Your task to perform on an android device: turn on the 12-hour format for clock Image 0: 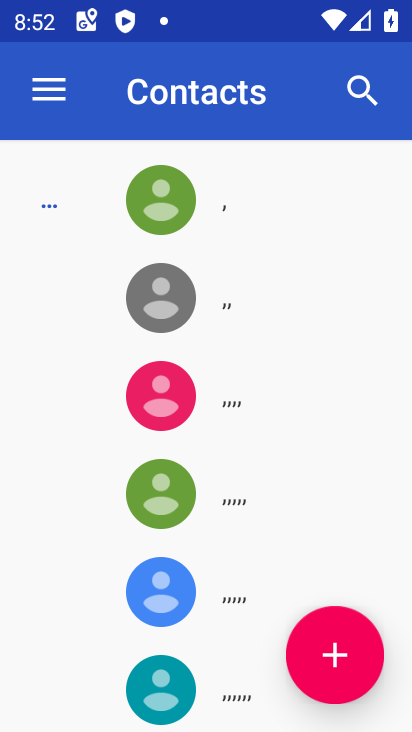
Step 0: press home button
Your task to perform on an android device: turn on the 12-hour format for clock Image 1: 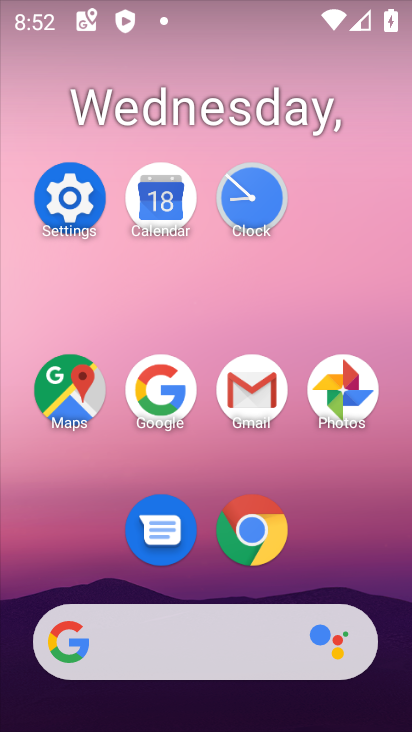
Step 1: click (255, 199)
Your task to perform on an android device: turn on the 12-hour format for clock Image 2: 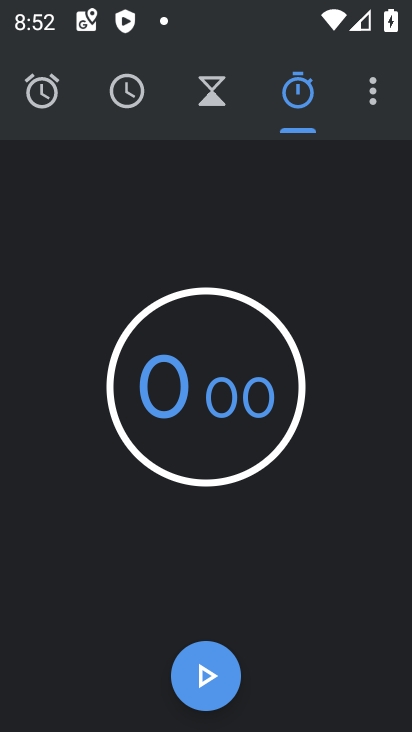
Step 2: click (374, 89)
Your task to perform on an android device: turn on the 12-hour format for clock Image 3: 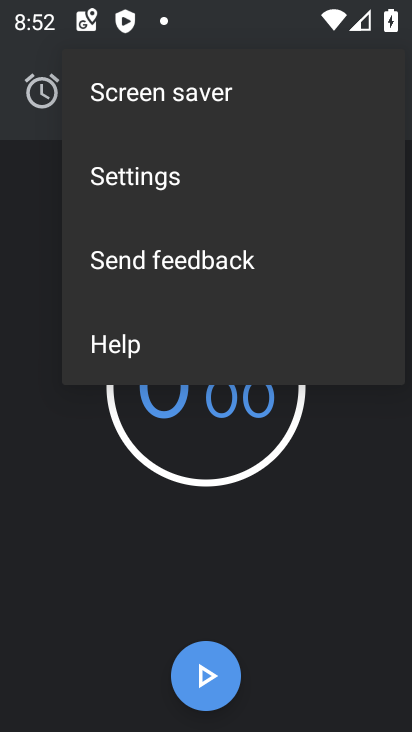
Step 3: click (168, 199)
Your task to perform on an android device: turn on the 12-hour format for clock Image 4: 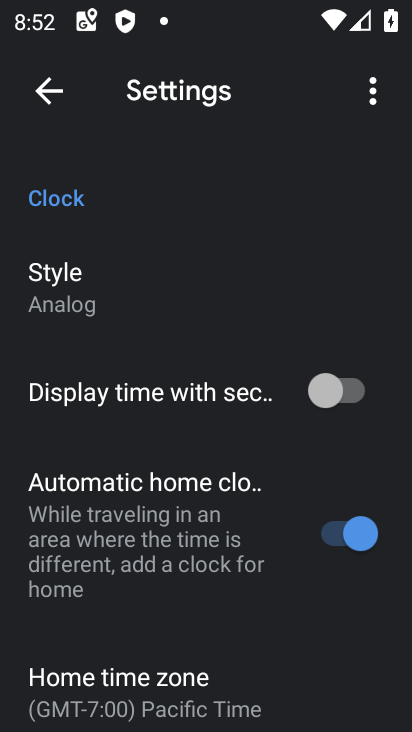
Step 4: drag from (247, 617) to (264, 159)
Your task to perform on an android device: turn on the 12-hour format for clock Image 5: 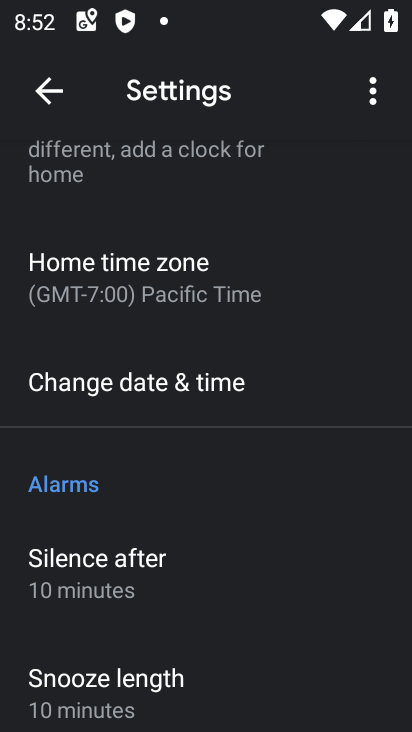
Step 5: click (264, 389)
Your task to perform on an android device: turn on the 12-hour format for clock Image 6: 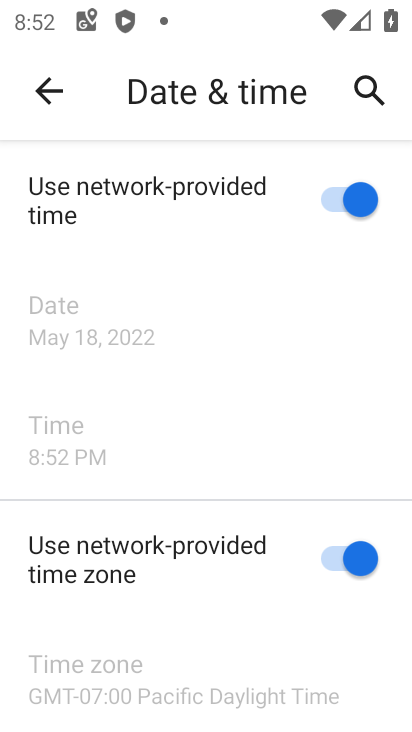
Step 6: task complete